Your task to perform on an android device: allow cookies in the chrome app Image 0: 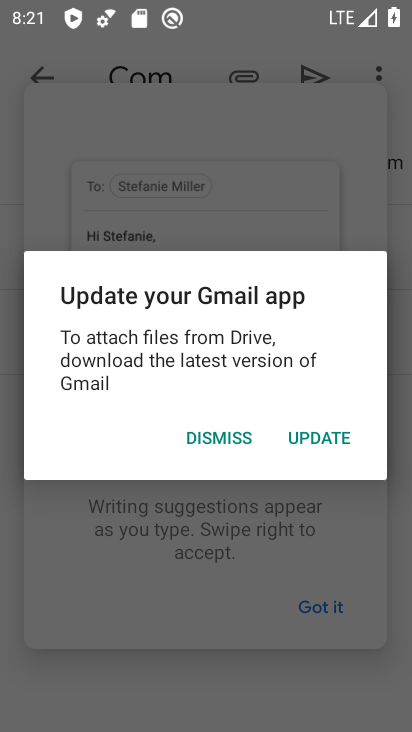
Step 0: press back button
Your task to perform on an android device: allow cookies in the chrome app Image 1: 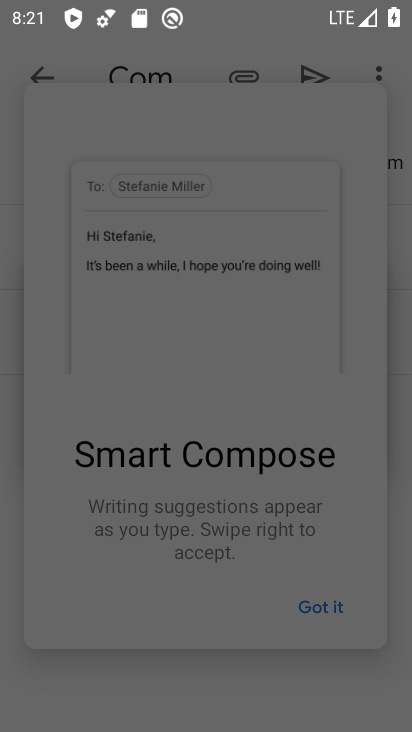
Step 1: press back button
Your task to perform on an android device: allow cookies in the chrome app Image 2: 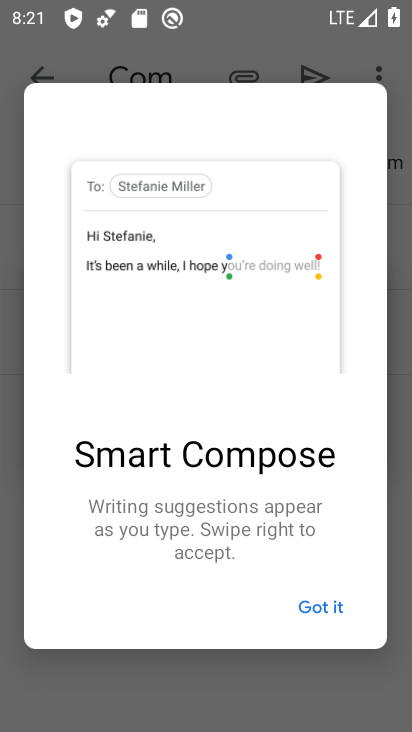
Step 2: press back button
Your task to perform on an android device: allow cookies in the chrome app Image 3: 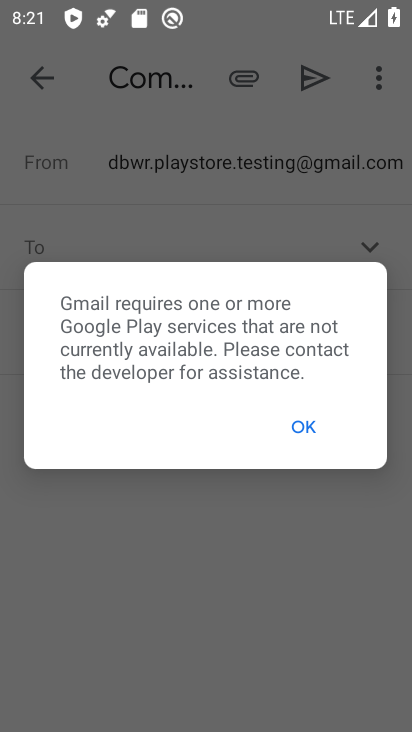
Step 3: press home button
Your task to perform on an android device: allow cookies in the chrome app Image 4: 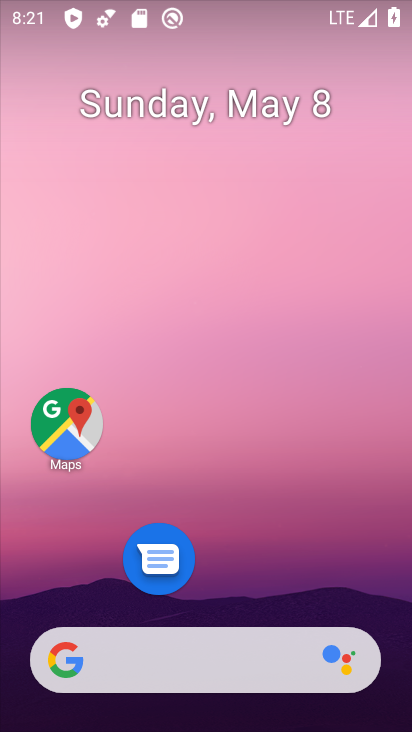
Step 4: drag from (278, 655) to (234, 95)
Your task to perform on an android device: allow cookies in the chrome app Image 5: 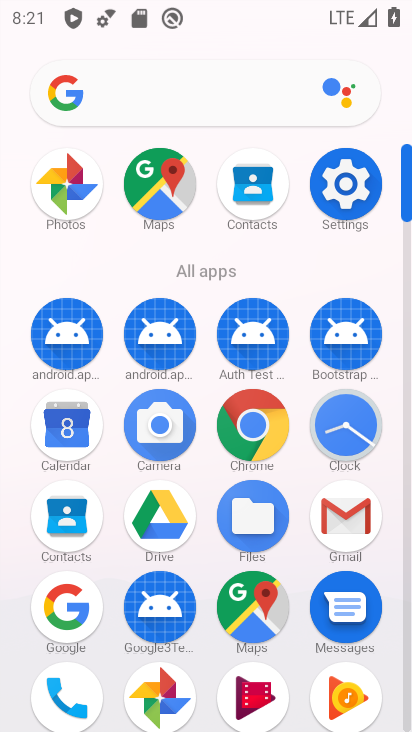
Step 5: click (260, 433)
Your task to perform on an android device: allow cookies in the chrome app Image 6: 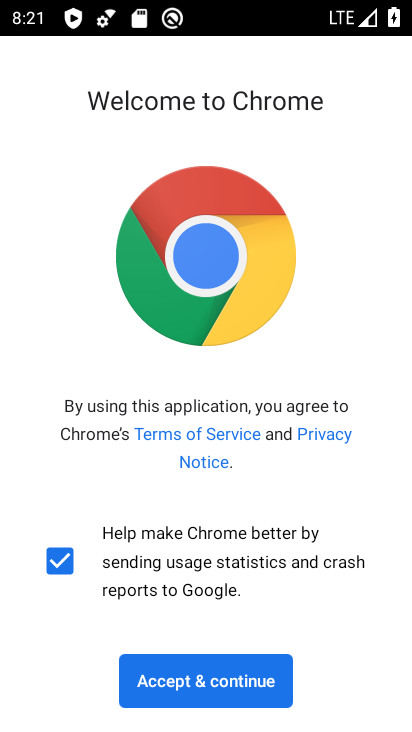
Step 6: click (220, 684)
Your task to perform on an android device: allow cookies in the chrome app Image 7: 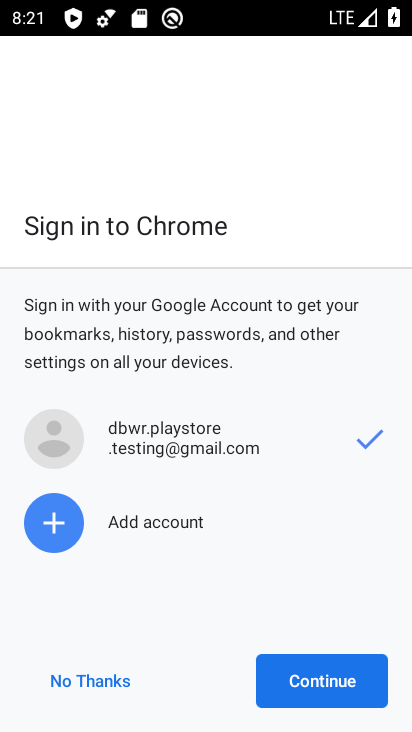
Step 7: click (121, 682)
Your task to perform on an android device: allow cookies in the chrome app Image 8: 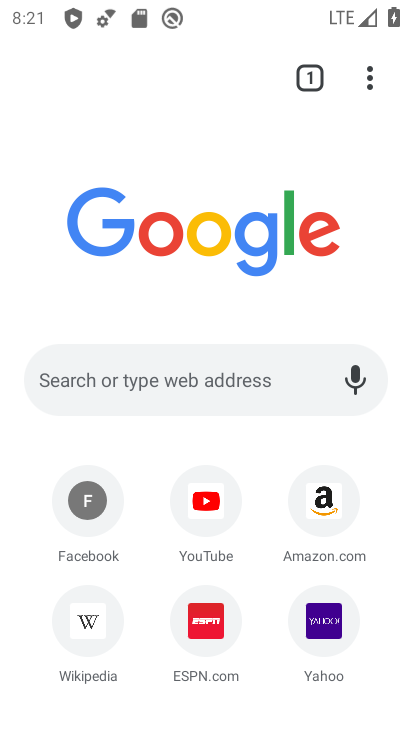
Step 8: drag from (364, 78) to (199, 642)
Your task to perform on an android device: allow cookies in the chrome app Image 9: 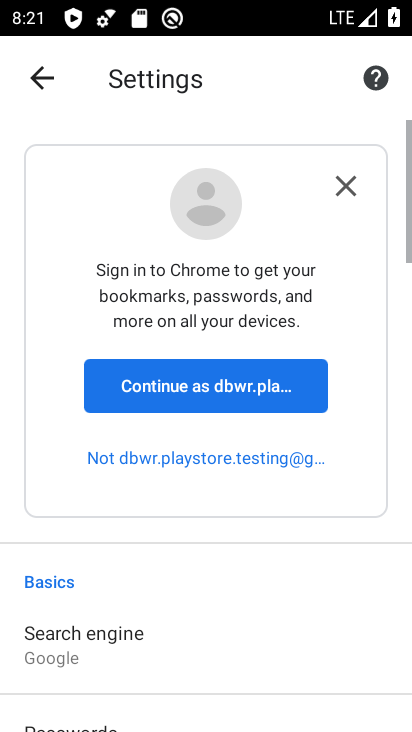
Step 9: drag from (189, 625) to (173, 38)
Your task to perform on an android device: allow cookies in the chrome app Image 10: 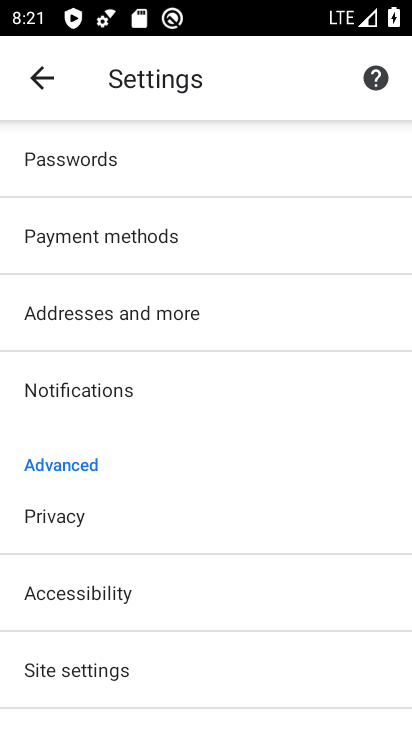
Step 10: click (102, 688)
Your task to perform on an android device: allow cookies in the chrome app Image 11: 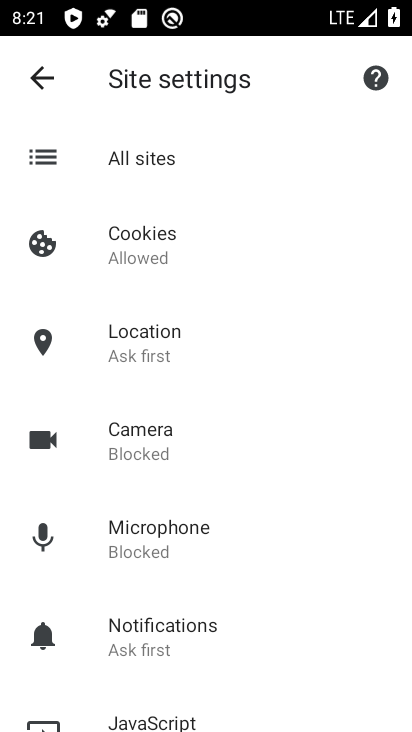
Step 11: click (179, 259)
Your task to perform on an android device: allow cookies in the chrome app Image 12: 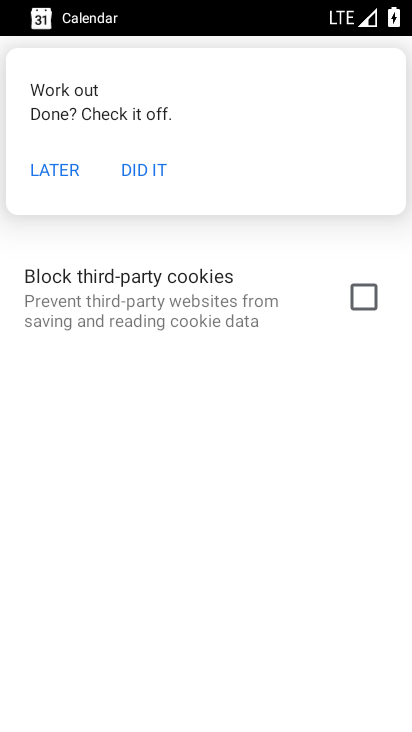
Step 12: task complete